Your task to perform on an android device: remove spam from my inbox in the gmail app Image 0: 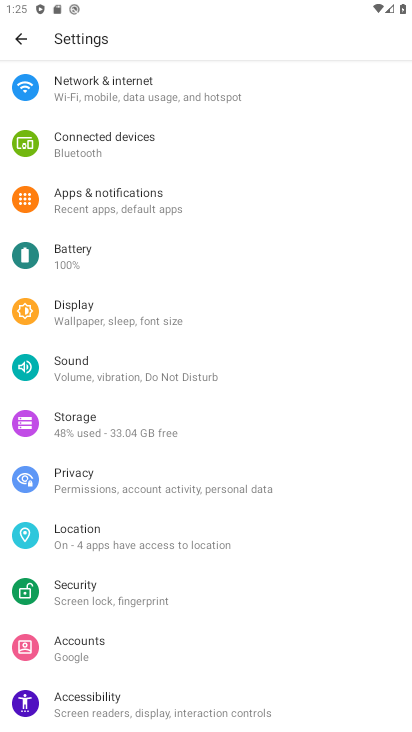
Step 0: press back button
Your task to perform on an android device: remove spam from my inbox in the gmail app Image 1: 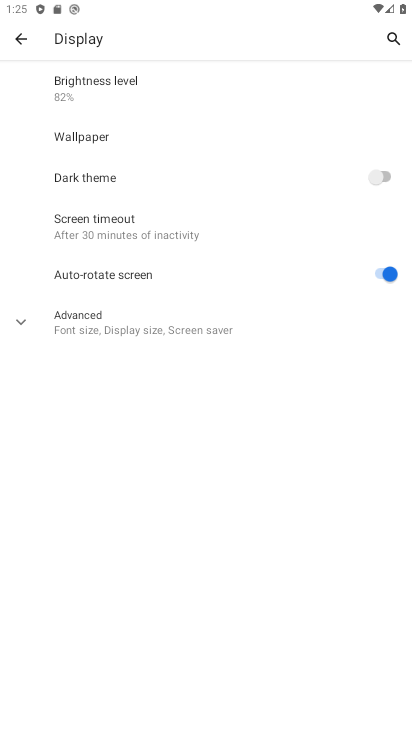
Step 1: press back button
Your task to perform on an android device: remove spam from my inbox in the gmail app Image 2: 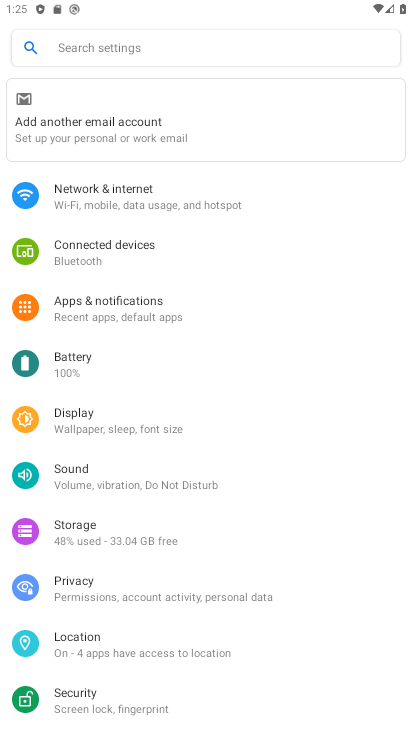
Step 2: press back button
Your task to perform on an android device: remove spam from my inbox in the gmail app Image 3: 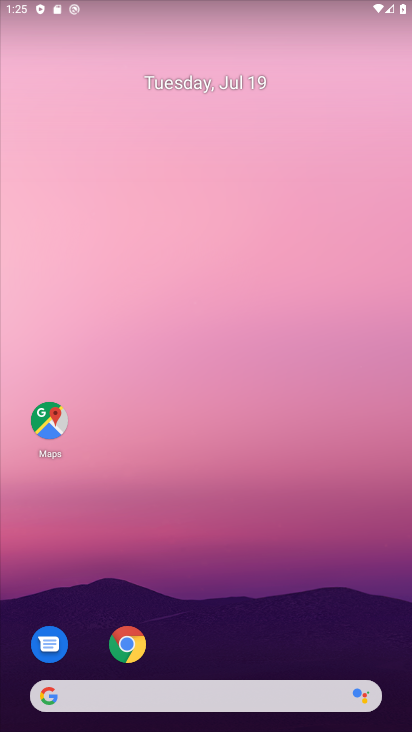
Step 3: drag from (187, 406) to (195, 145)
Your task to perform on an android device: remove spam from my inbox in the gmail app Image 4: 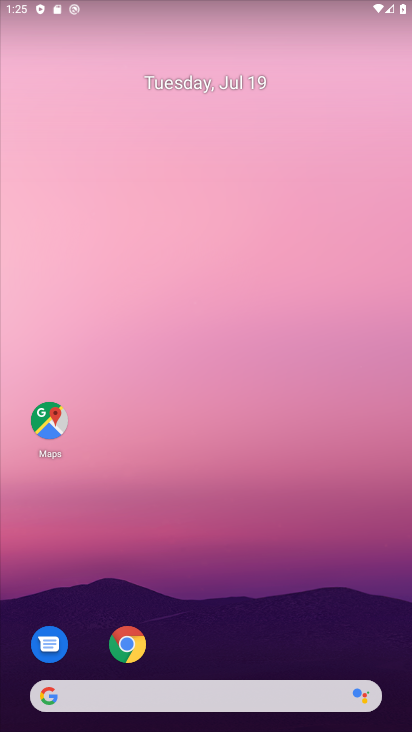
Step 4: drag from (191, 615) to (241, 6)
Your task to perform on an android device: remove spam from my inbox in the gmail app Image 5: 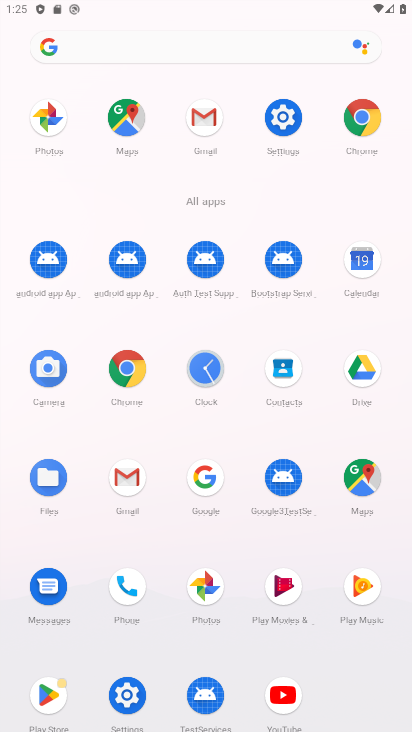
Step 5: click (202, 123)
Your task to perform on an android device: remove spam from my inbox in the gmail app Image 6: 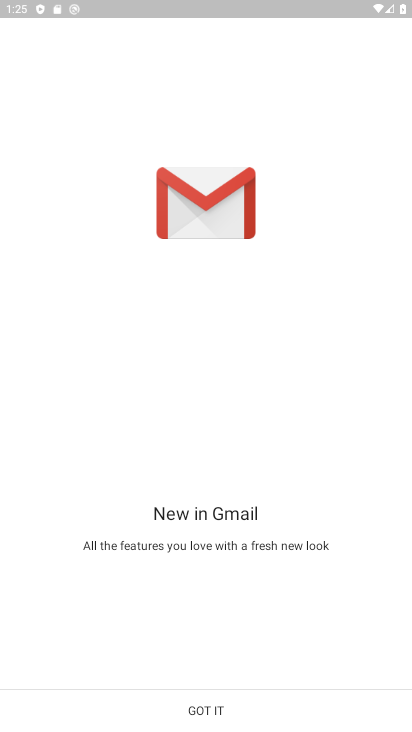
Step 6: click (202, 719)
Your task to perform on an android device: remove spam from my inbox in the gmail app Image 7: 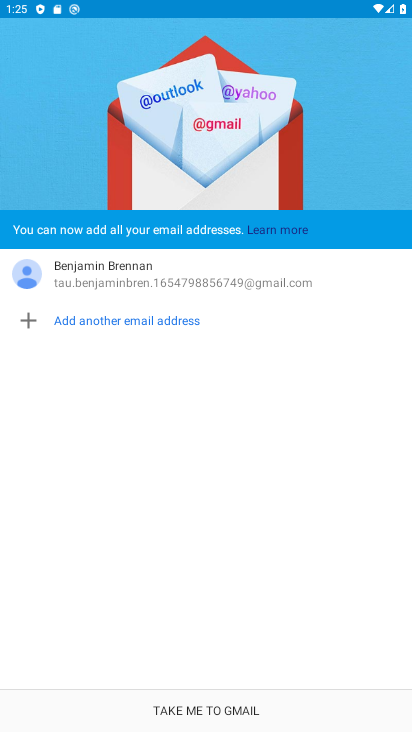
Step 7: click (202, 719)
Your task to perform on an android device: remove spam from my inbox in the gmail app Image 8: 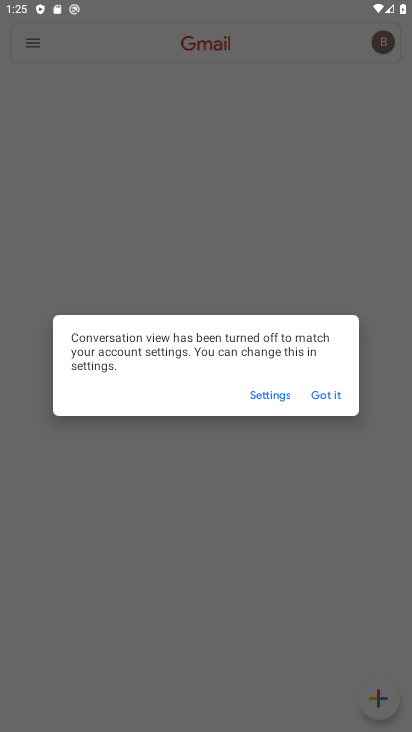
Step 8: click (323, 393)
Your task to perform on an android device: remove spam from my inbox in the gmail app Image 9: 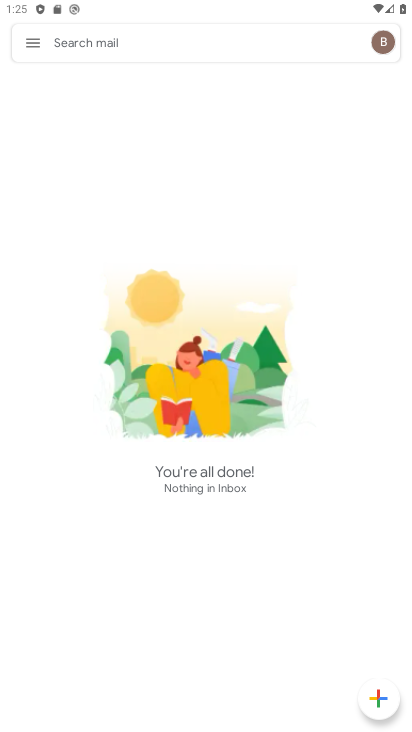
Step 9: click (34, 44)
Your task to perform on an android device: remove spam from my inbox in the gmail app Image 10: 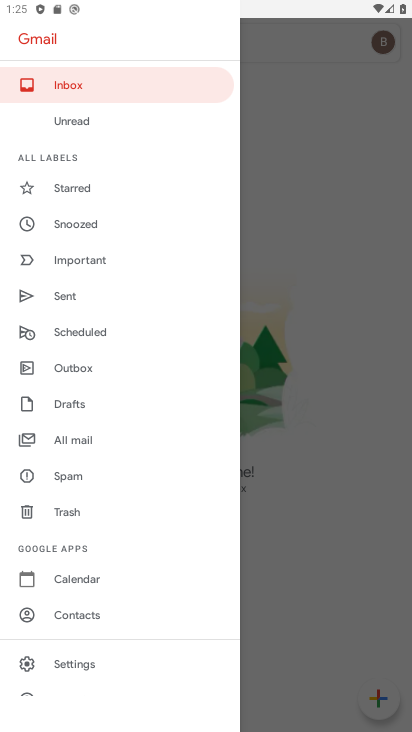
Step 10: click (74, 476)
Your task to perform on an android device: remove spam from my inbox in the gmail app Image 11: 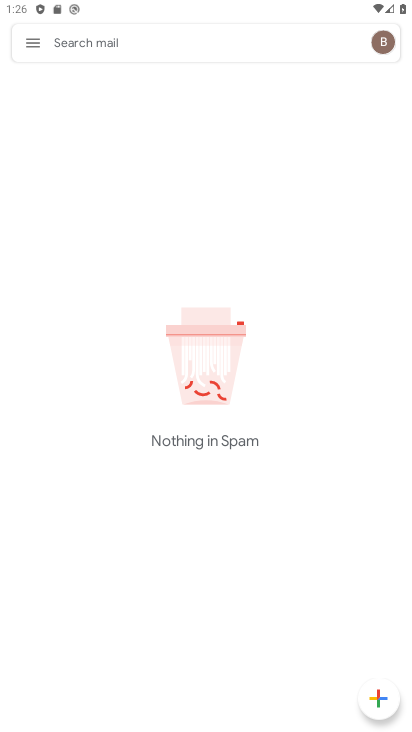
Step 11: task complete